Your task to perform on an android device: delete the emails in spam in the gmail app Image 0: 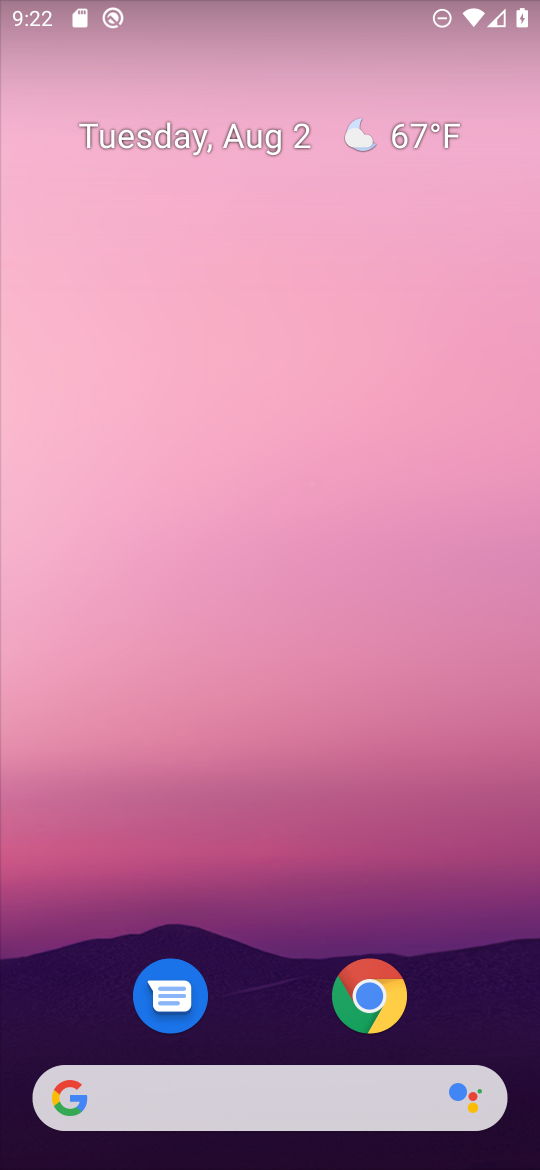
Step 0: drag from (263, 1012) to (322, 8)
Your task to perform on an android device: delete the emails in spam in the gmail app Image 1: 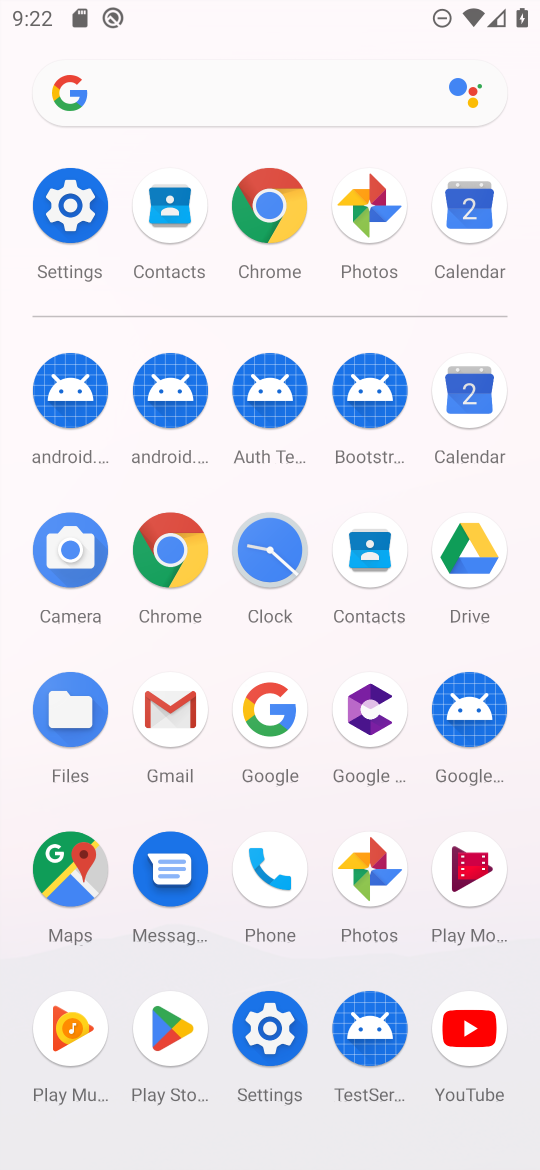
Step 1: click (171, 704)
Your task to perform on an android device: delete the emails in spam in the gmail app Image 2: 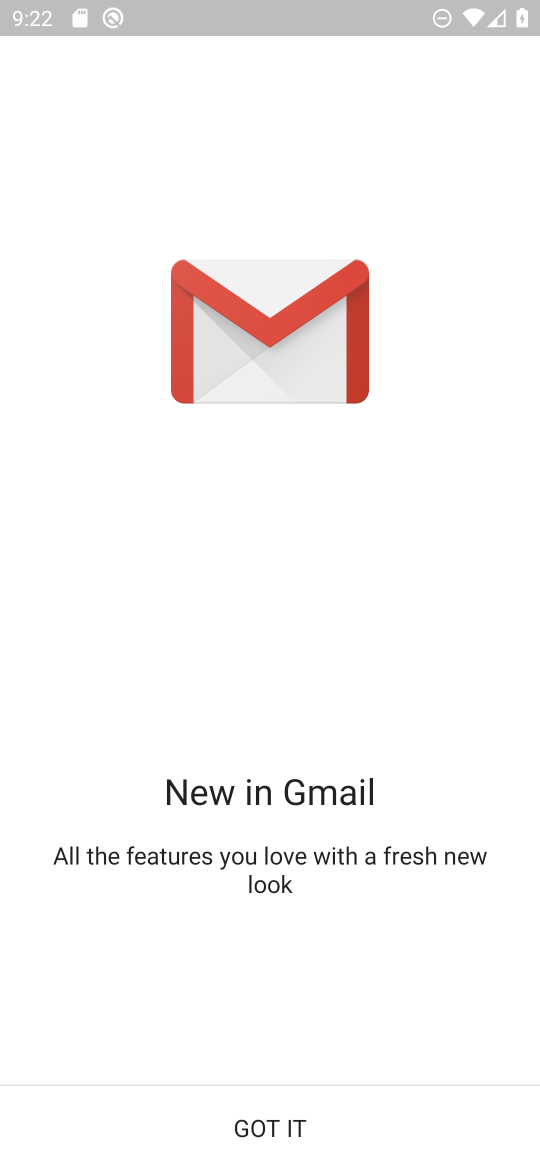
Step 2: click (267, 1134)
Your task to perform on an android device: delete the emails in spam in the gmail app Image 3: 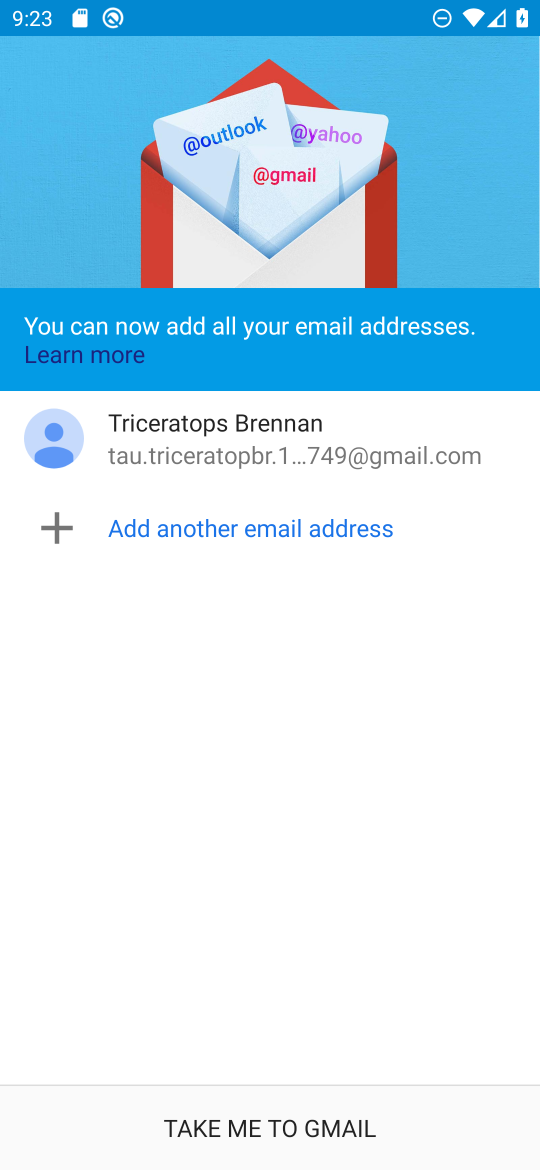
Step 3: click (316, 1122)
Your task to perform on an android device: delete the emails in spam in the gmail app Image 4: 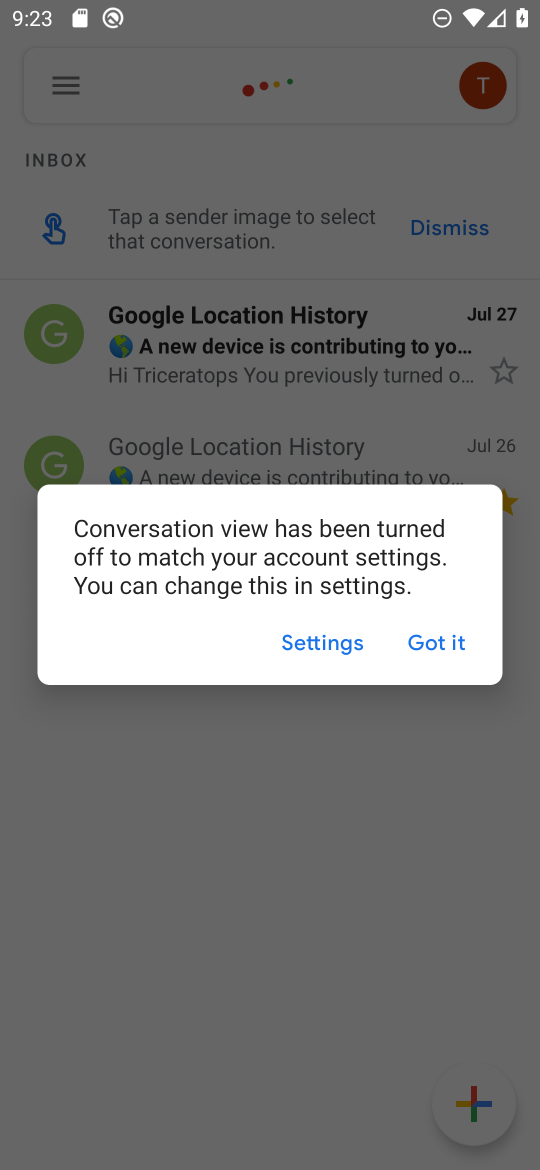
Step 4: click (445, 649)
Your task to perform on an android device: delete the emails in spam in the gmail app Image 5: 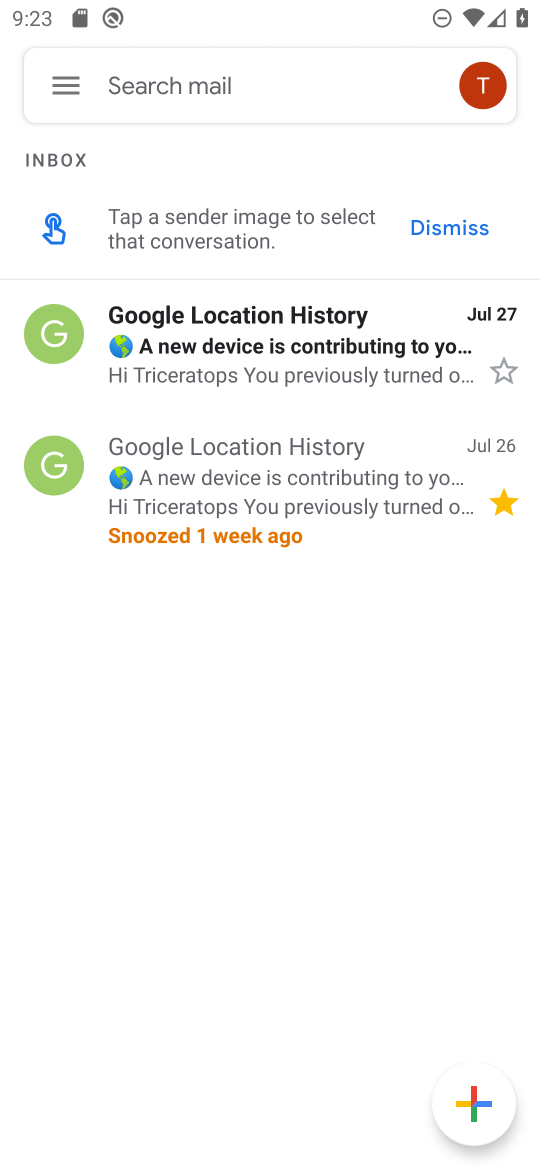
Step 5: click (66, 325)
Your task to perform on an android device: delete the emails in spam in the gmail app Image 6: 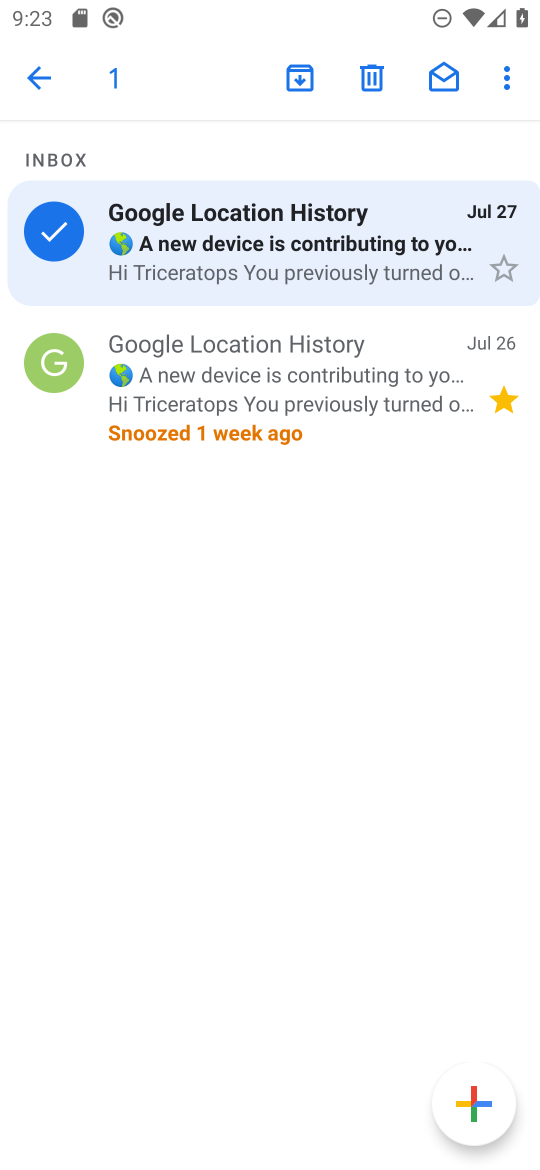
Step 6: click (152, 526)
Your task to perform on an android device: delete the emails in spam in the gmail app Image 7: 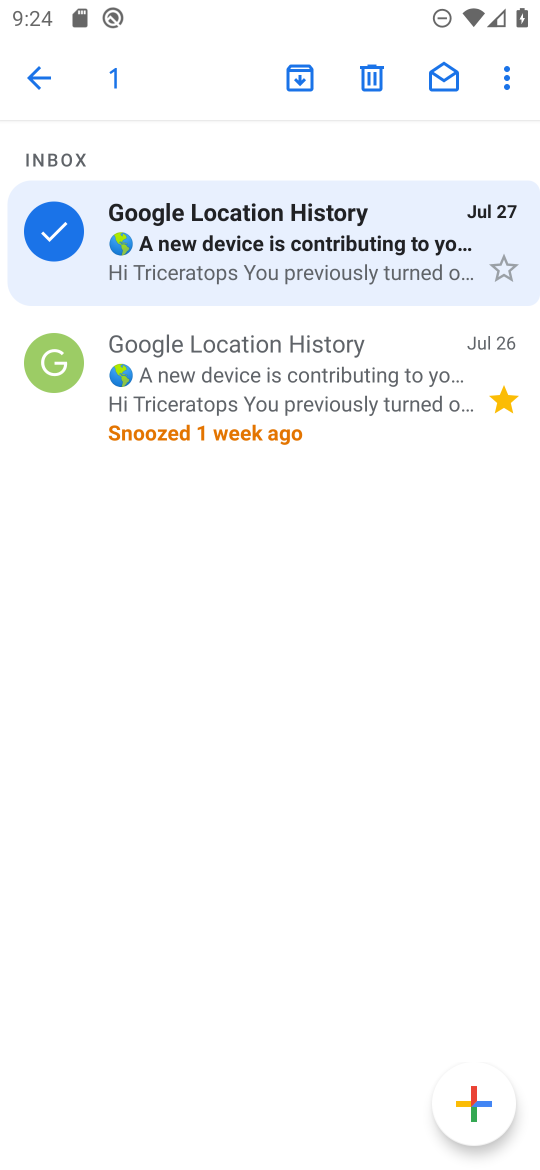
Step 7: click (38, 247)
Your task to perform on an android device: delete the emails in spam in the gmail app Image 8: 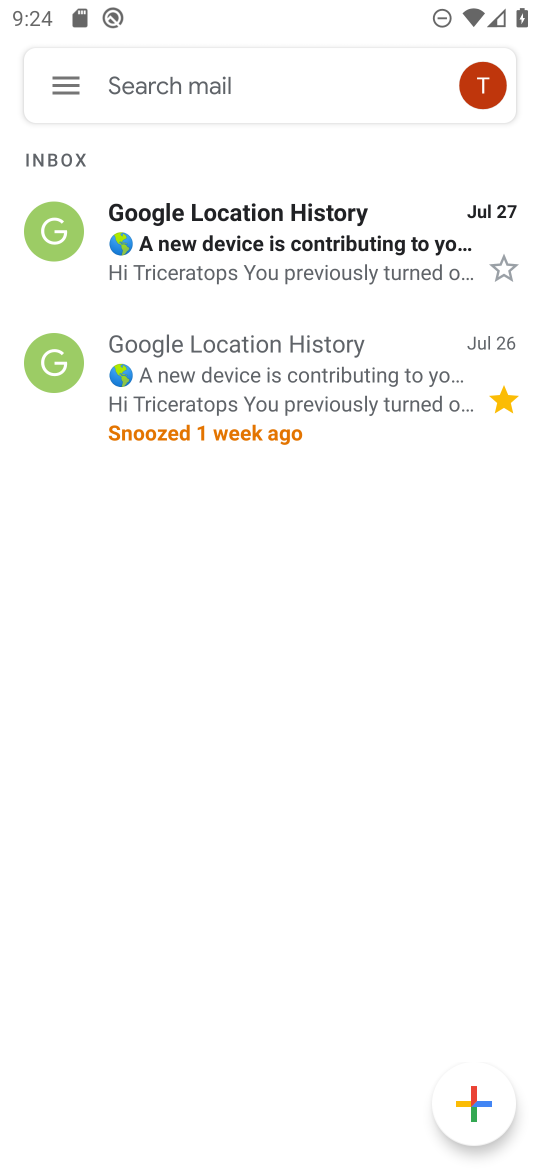
Step 8: click (52, 95)
Your task to perform on an android device: delete the emails in spam in the gmail app Image 9: 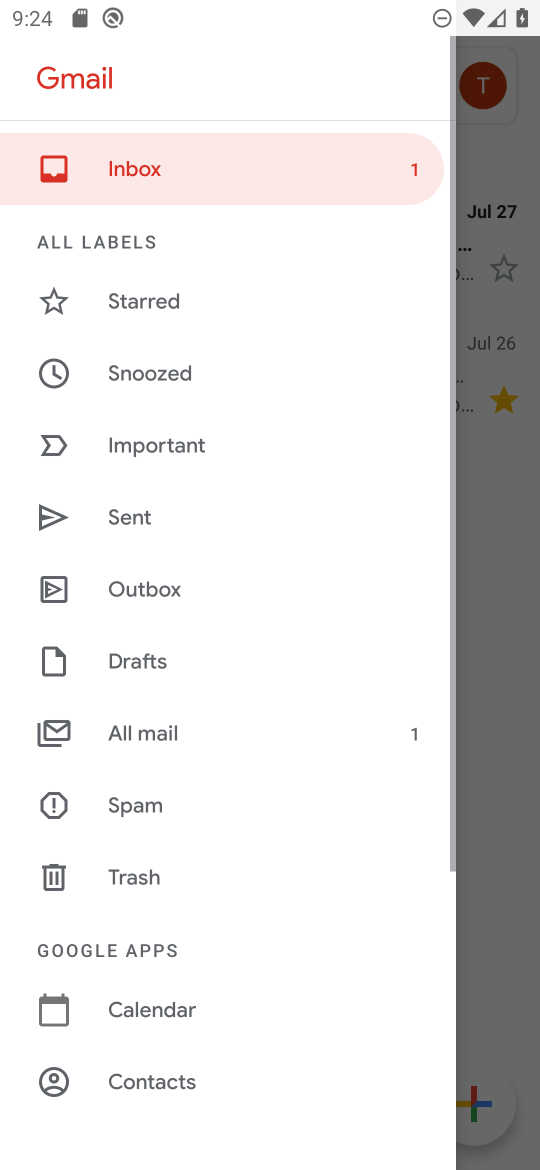
Step 9: click (67, 92)
Your task to perform on an android device: delete the emails in spam in the gmail app Image 10: 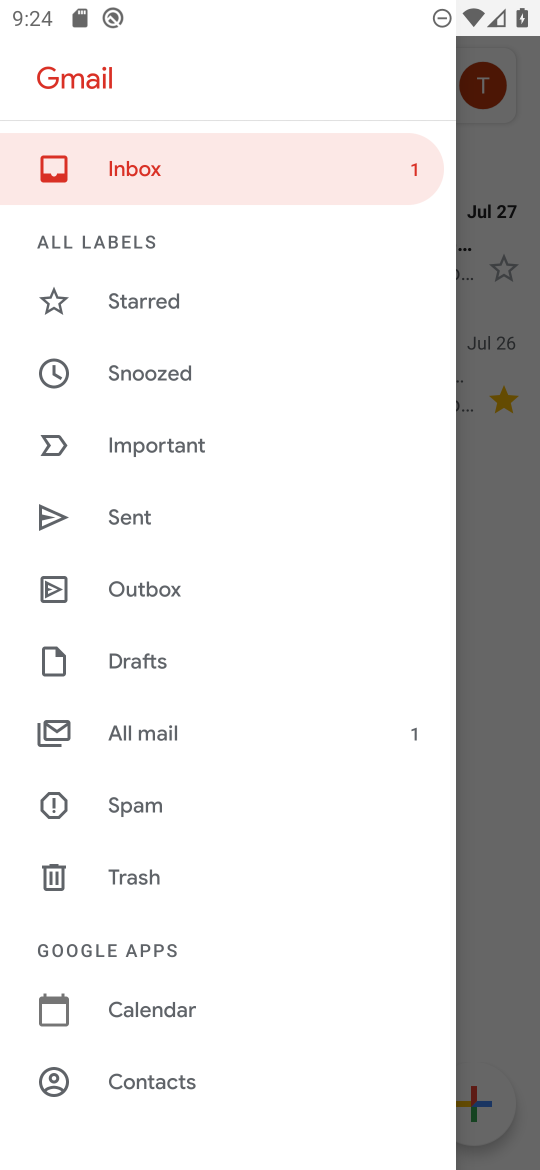
Step 10: click (138, 807)
Your task to perform on an android device: delete the emails in spam in the gmail app Image 11: 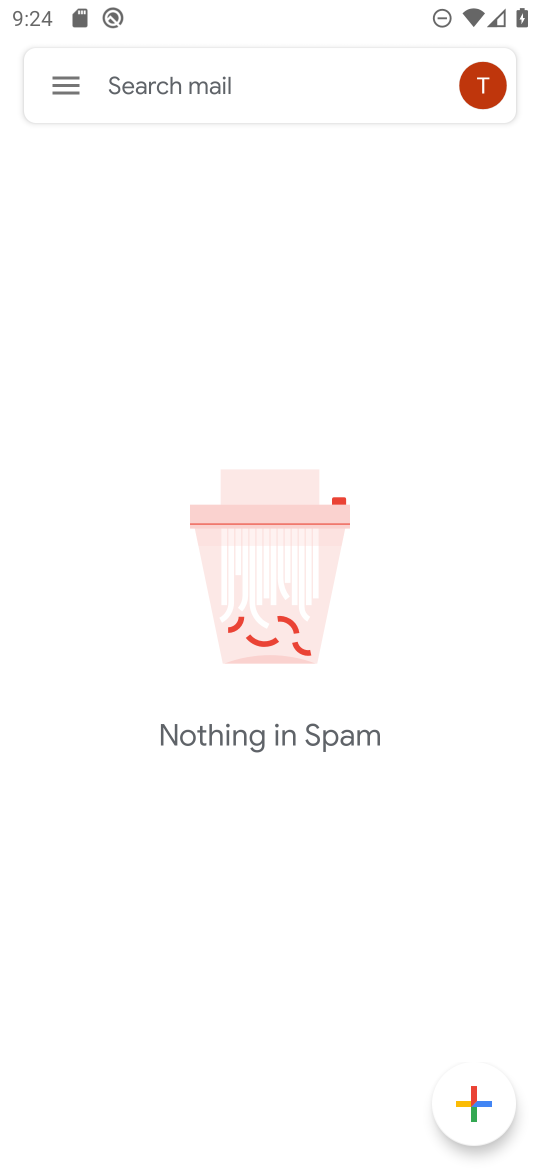
Step 11: task complete